Your task to perform on an android device: Open Wikipedia Image 0: 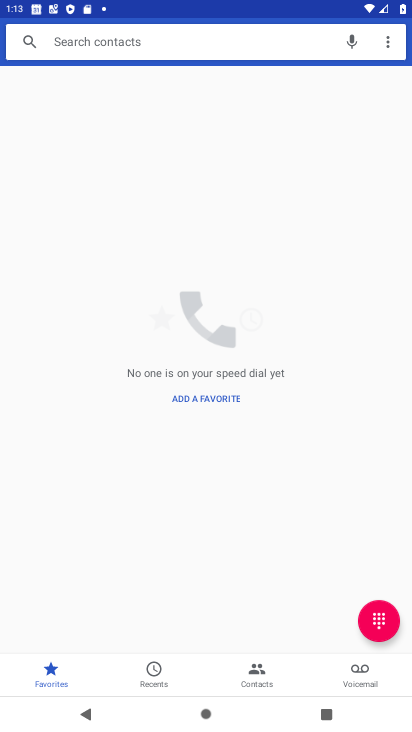
Step 0: press home button
Your task to perform on an android device: Open Wikipedia Image 1: 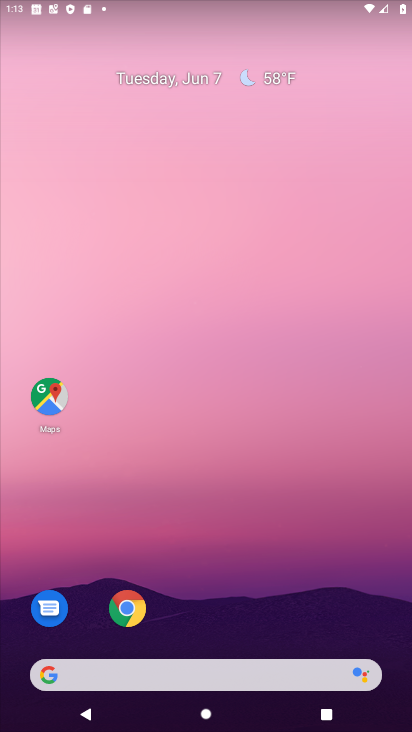
Step 1: click (123, 611)
Your task to perform on an android device: Open Wikipedia Image 2: 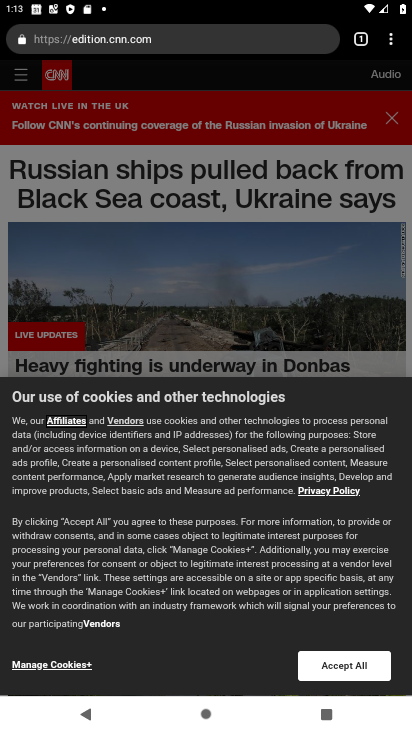
Step 2: click (146, 593)
Your task to perform on an android device: Open Wikipedia Image 3: 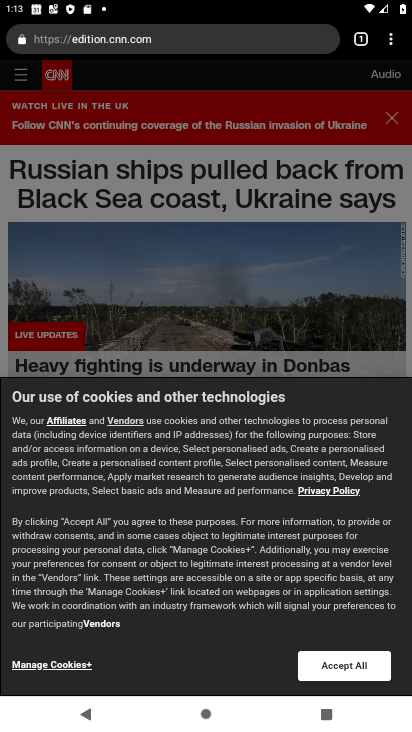
Step 3: click (205, 20)
Your task to perform on an android device: Open Wikipedia Image 4: 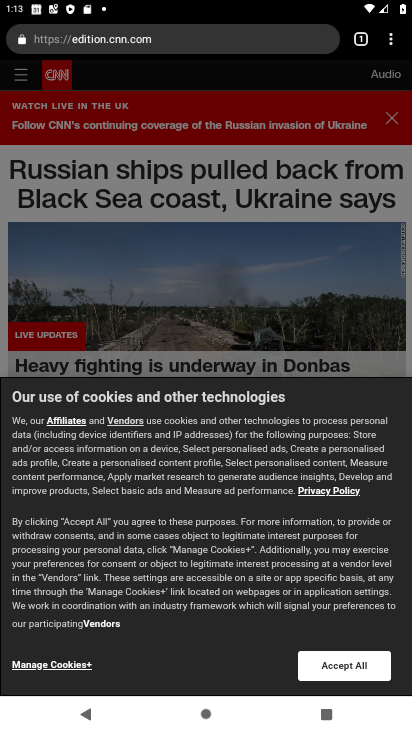
Step 4: click (210, 39)
Your task to perform on an android device: Open Wikipedia Image 5: 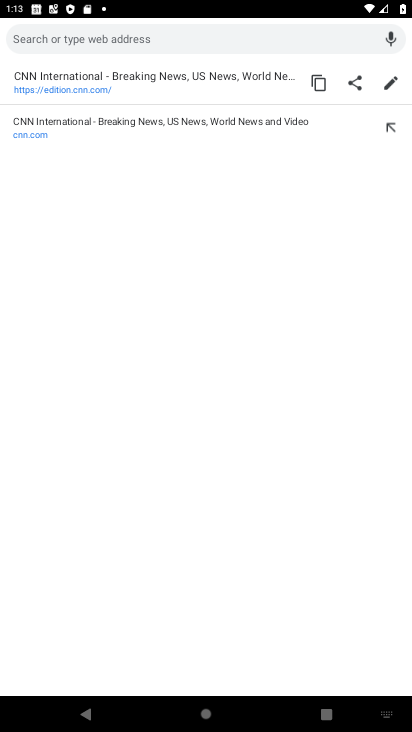
Step 5: type "wikipedia"
Your task to perform on an android device: Open Wikipedia Image 6: 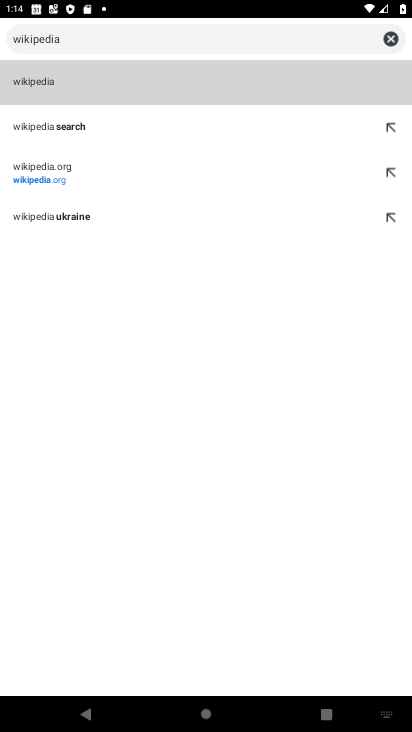
Step 6: click (35, 182)
Your task to perform on an android device: Open Wikipedia Image 7: 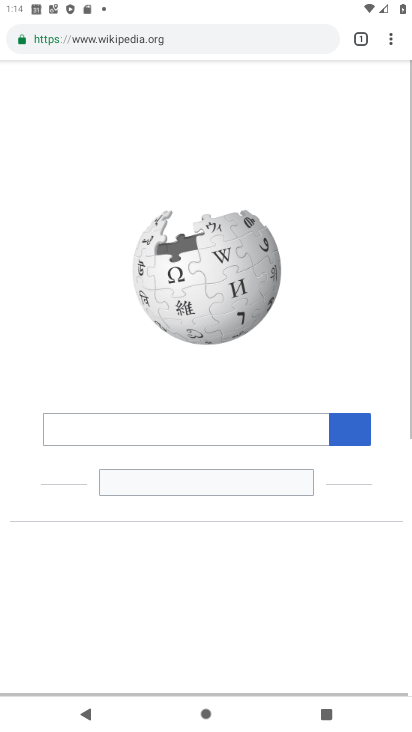
Step 7: task complete